Your task to perform on an android device: turn smart compose on in the gmail app Image 0: 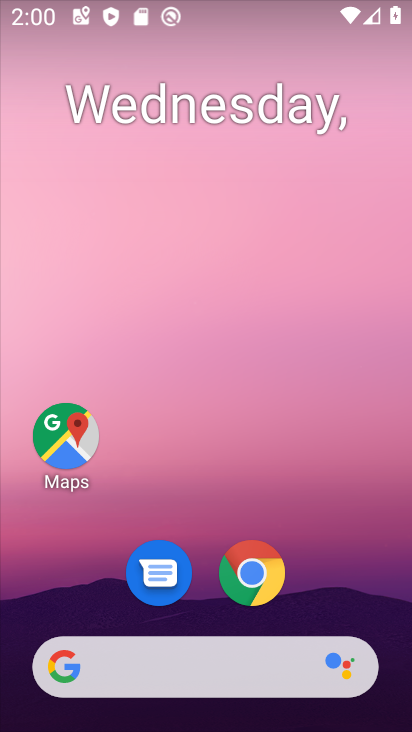
Step 0: drag from (202, 609) to (218, 149)
Your task to perform on an android device: turn smart compose on in the gmail app Image 1: 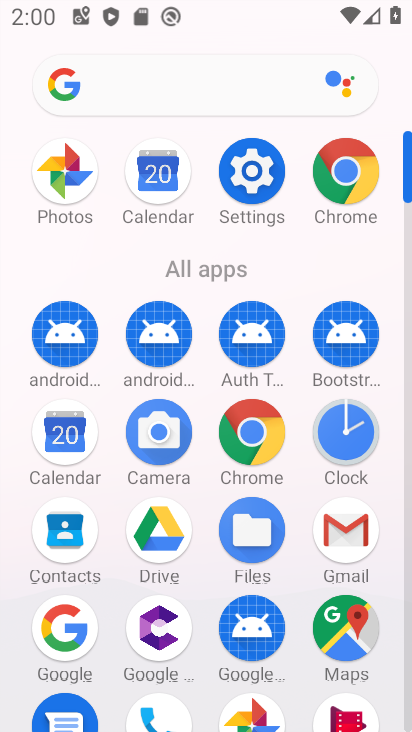
Step 1: click (356, 530)
Your task to perform on an android device: turn smart compose on in the gmail app Image 2: 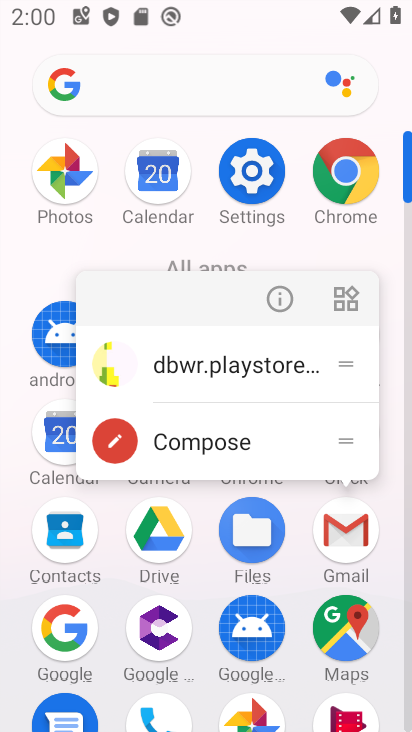
Step 2: click (355, 529)
Your task to perform on an android device: turn smart compose on in the gmail app Image 3: 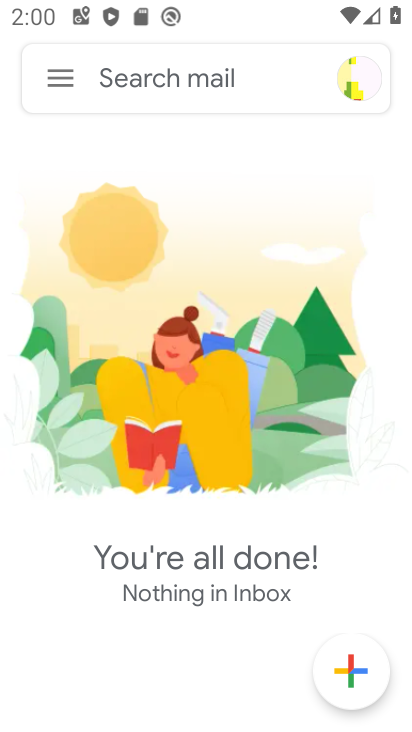
Step 3: click (57, 70)
Your task to perform on an android device: turn smart compose on in the gmail app Image 4: 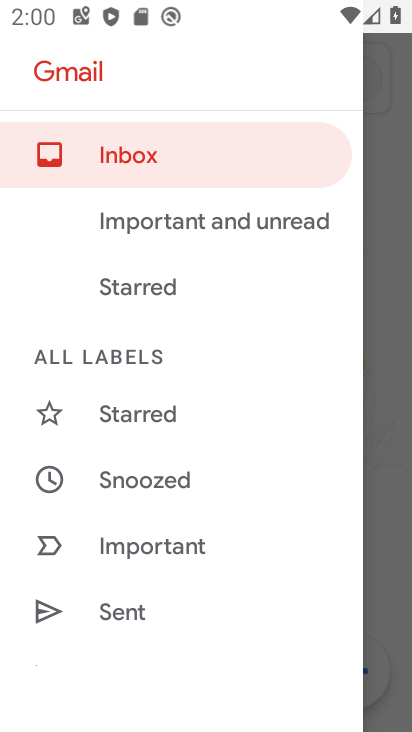
Step 4: drag from (205, 534) to (200, 66)
Your task to perform on an android device: turn smart compose on in the gmail app Image 5: 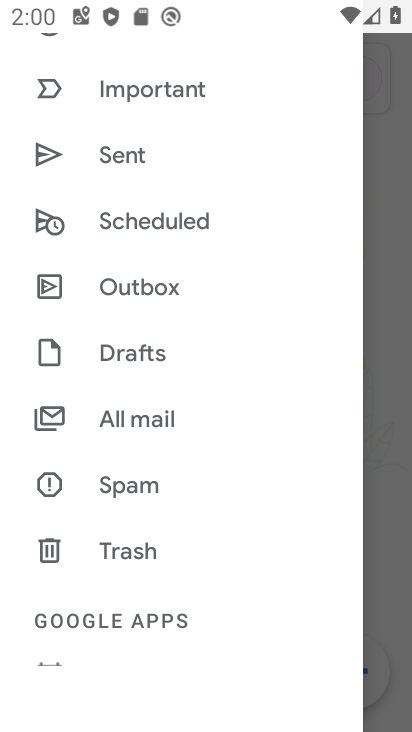
Step 5: drag from (212, 508) to (138, 76)
Your task to perform on an android device: turn smart compose on in the gmail app Image 6: 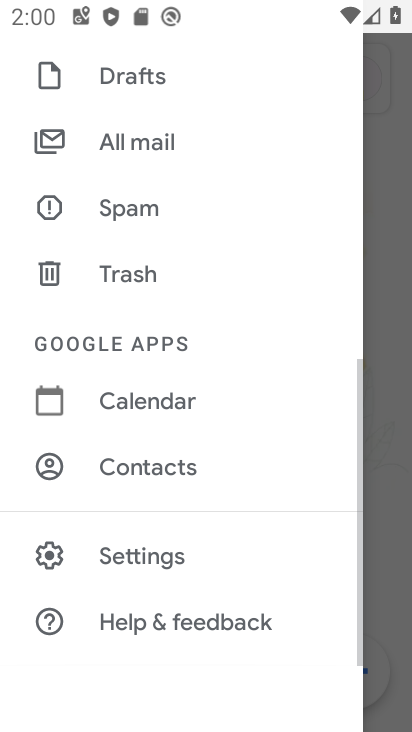
Step 6: click (139, 554)
Your task to perform on an android device: turn smart compose on in the gmail app Image 7: 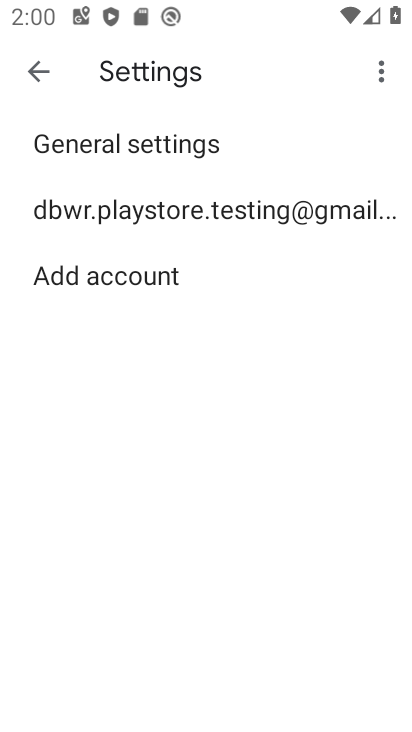
Step 7: click (160, 215)
Your task to perform on an android device: turn smart compose on in the gmail app Image 8: 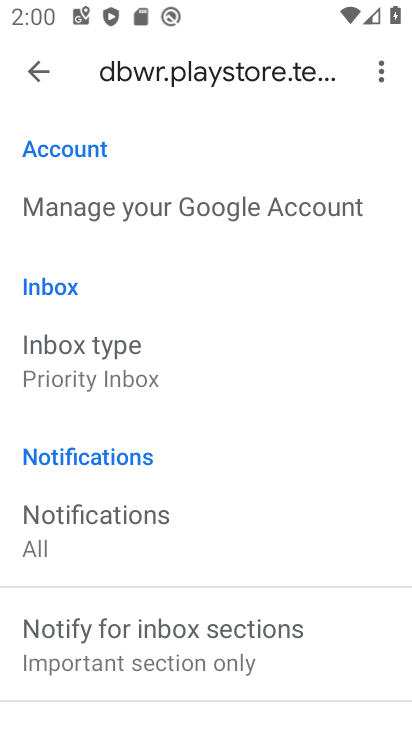
Step 8: task complete